Your task to perform on an android device: empty trash in the gmail app Image 0: 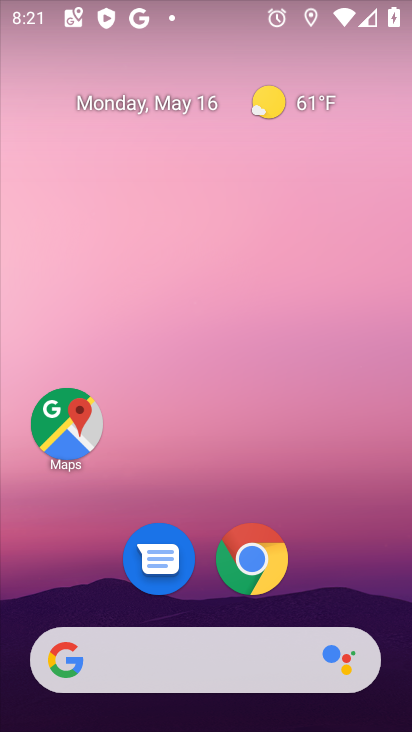
Step 0: drag from (343, 546) to (351, 85)
Your task to perform on an android device: empty trash in the gmail app Image 1: 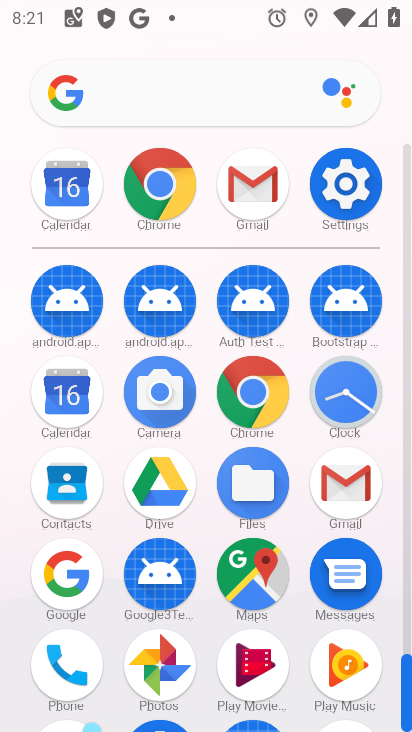
Step 1: click (327, 500)
Your task to perform on an android device: empty trash in the gmail app Image 2: 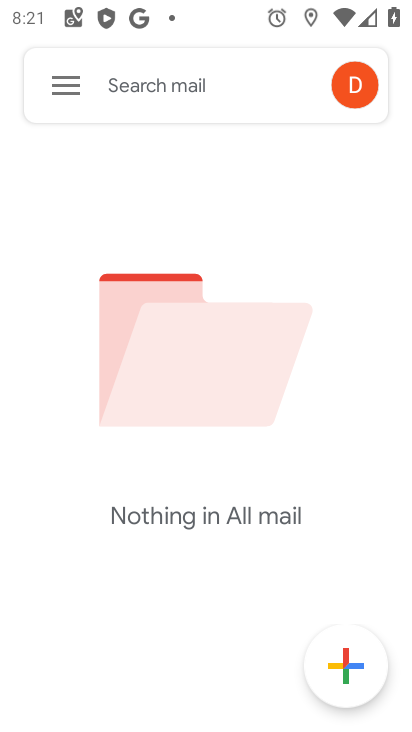
Step 2: click (57, 78)
Your task to perform on an android device: empty trash in the gmail app Image 3: 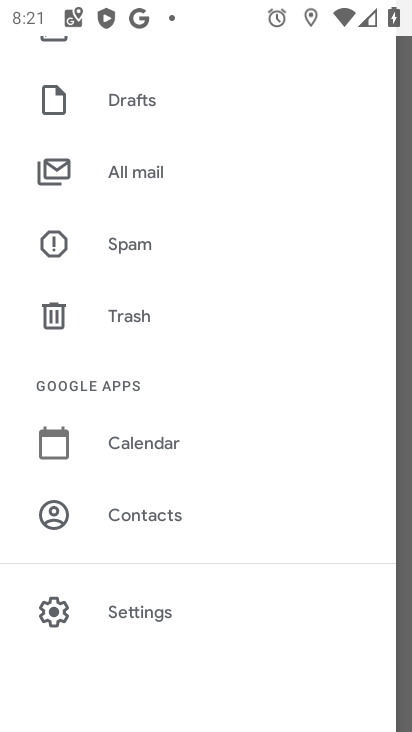
Step 3: click (156, 599)
Your task to perform on an android device: empty trash in the gmail app Image 4: 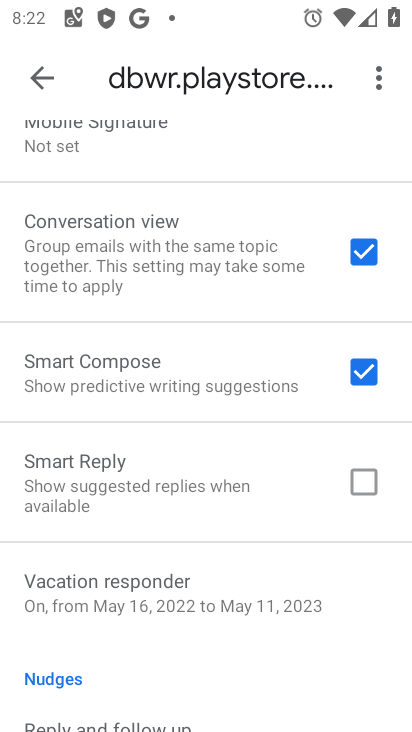
Step 4: click (45, 87)
Your task to perform on an android device: empty trash in the gmail app Image 5: 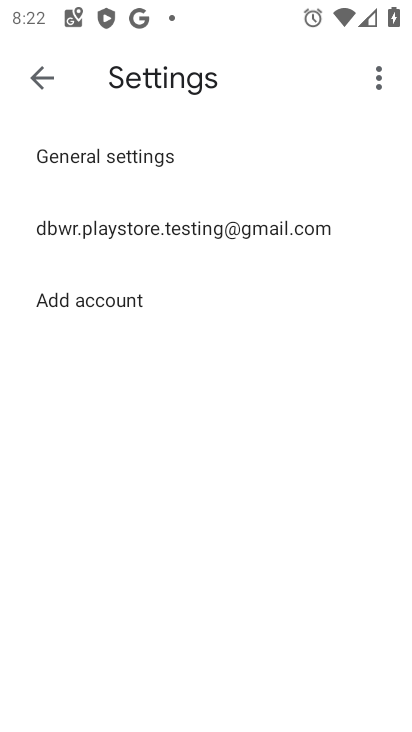
Step 5: click (45, 87)
Your task to perform on an android device: empty trash in the gmail app Image 6: 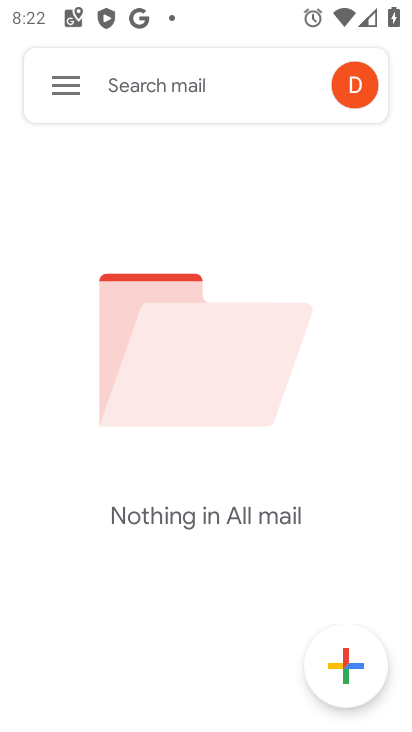
Step 6: click (45, 87)
Your task to perform on an android device: empty trash in the gmail app Image 7: 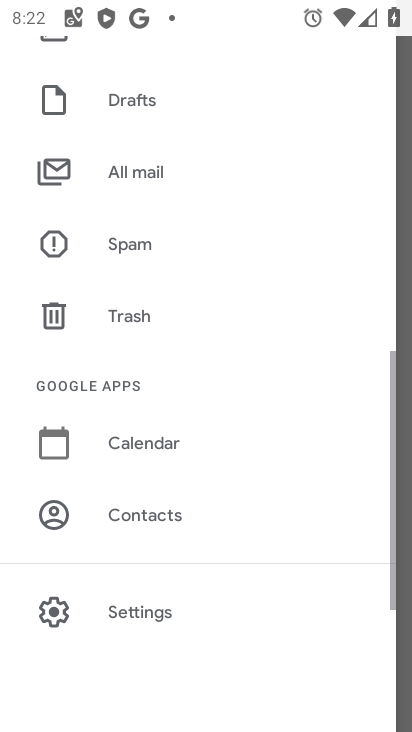
Step 7: click (135, 310)
Your task to perform on an android device: empty trash in the gmail app Image 8: 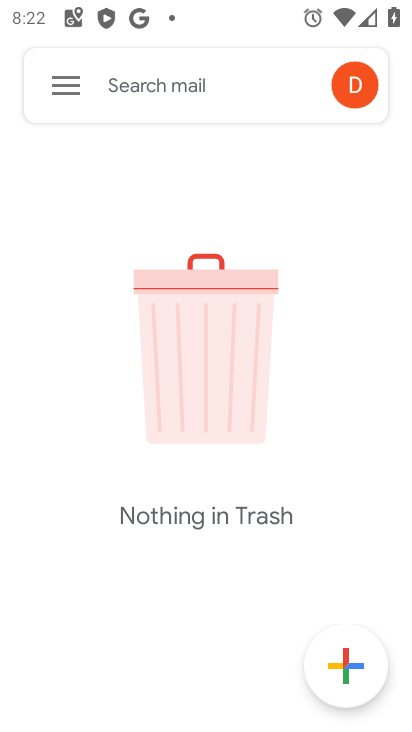
Step 8: task complete